Your task to perform on an android device: turn off notifications in google photos Image 0: 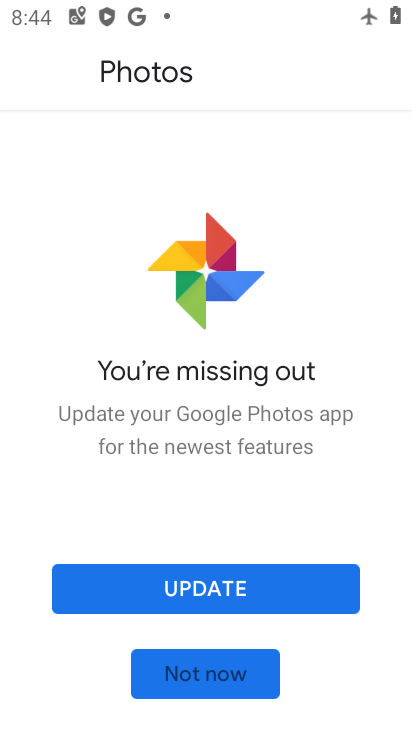
Step 0: press home button
Your task to perform on an android device: turn off notifications in google photos Image 1: 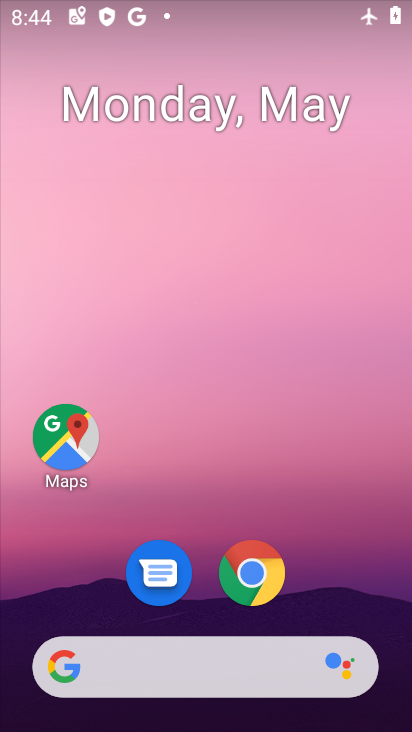
Step 1: drag from (236, 656) to (257, 138)
Your task to perform on an android device: turn off notifications in google photos Image 2: 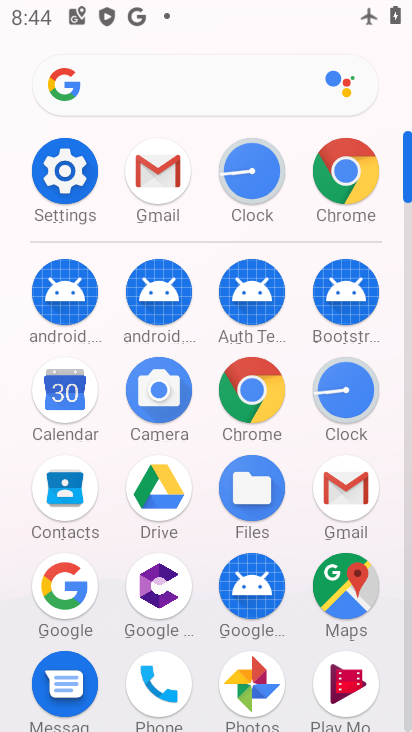
Step 2: drag from (228, 597) to (246, 369)
Your task to perform on an android device: turn off notifications in google photos Image 3: 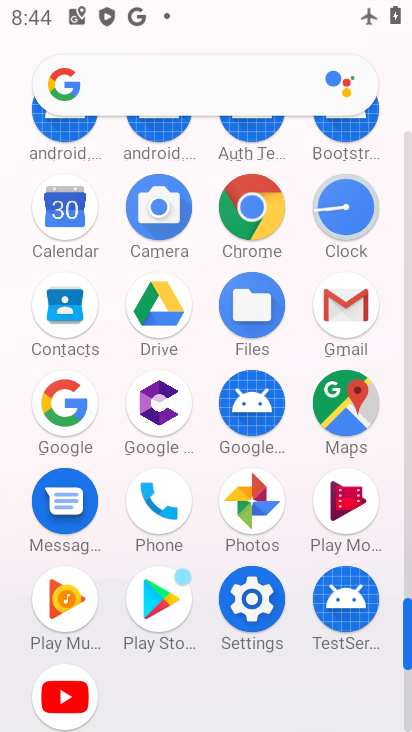
Step 3: click (255, 533)
Your task to perform on an android device: turn off notifications in google photos Image 4: 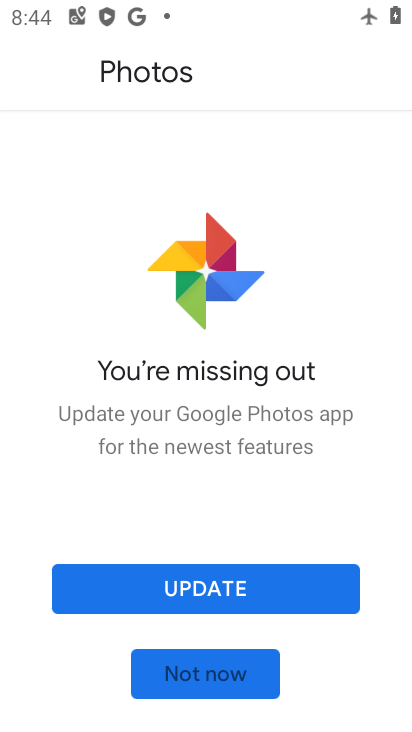
Step 4: click (212, 671)
Your task to perform on an android device: turn off notifications in google photos Image 5: 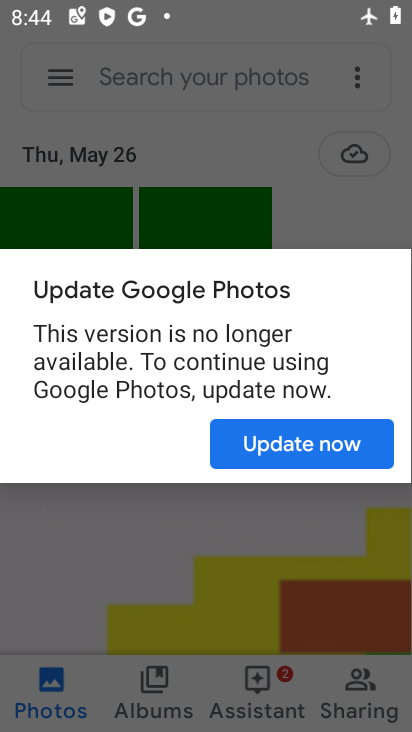
Step 5: task complete